Your task to perform on an android device: Do I have any events today? Image 0: 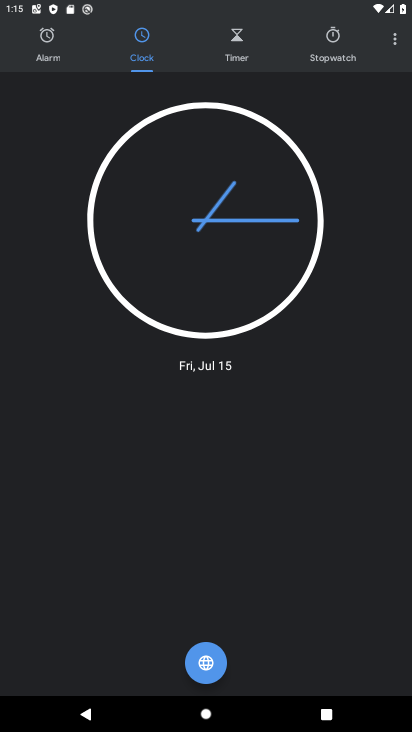
Step 0: press home button
Your task to perform on an android device: Do I have any events today? Image 1: 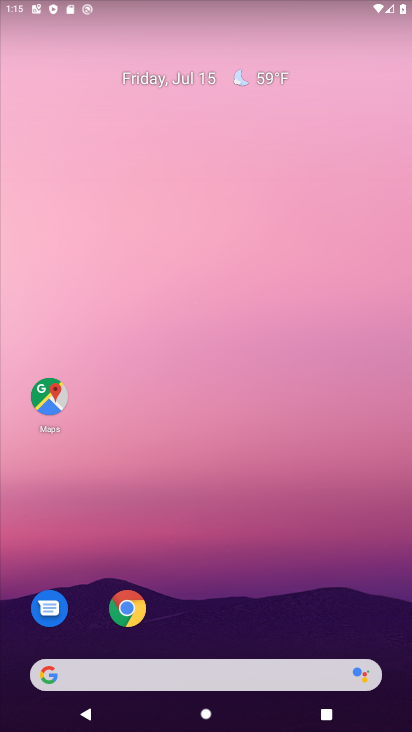
Step 1: drag from (182, 672) to (211, 143)
Your task to perform on an android device: Do I have any events today? Image 2: 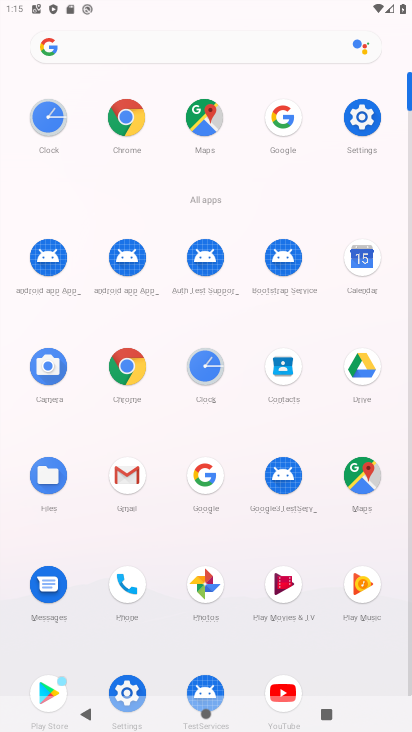
Step 2: click (358, 259)
Your task to perform on an android device: Do I have any events today? Image 3: 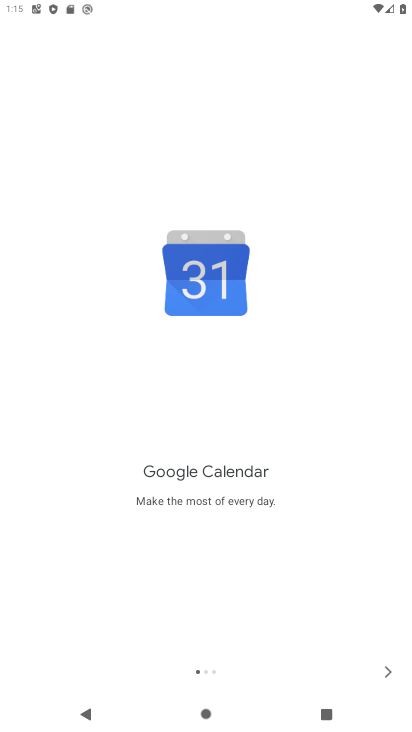
Step 3: click (382, 677)
Your task to perform on an android device: Do I have any events today? Image 4: 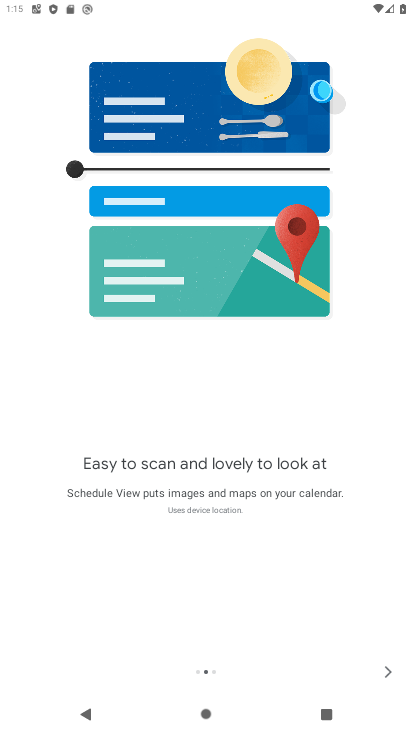
Step 4: click (382, 672)
Your task to perform on an android device: Do I have any events today? Image 5: 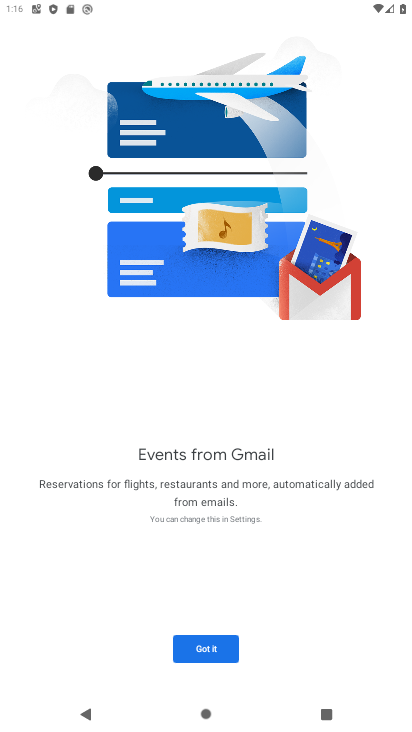
Step 5: click (197, 649)
Your task to perform on an android device: Do I have any events today? Image 6: 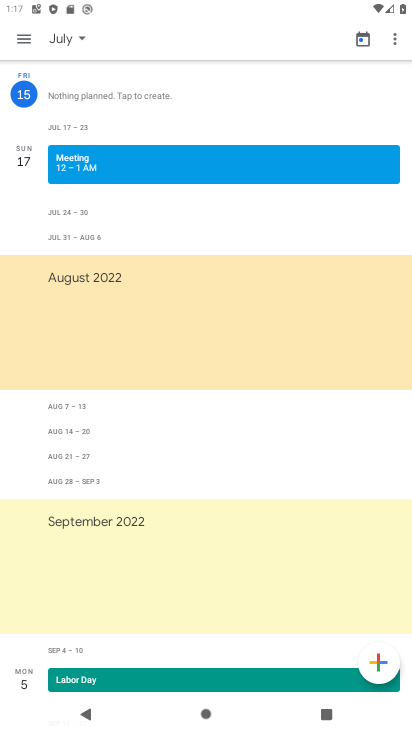
Step 6: click (28, 83)
Your task to perform on an android device: Do I have any events today? Image 7: 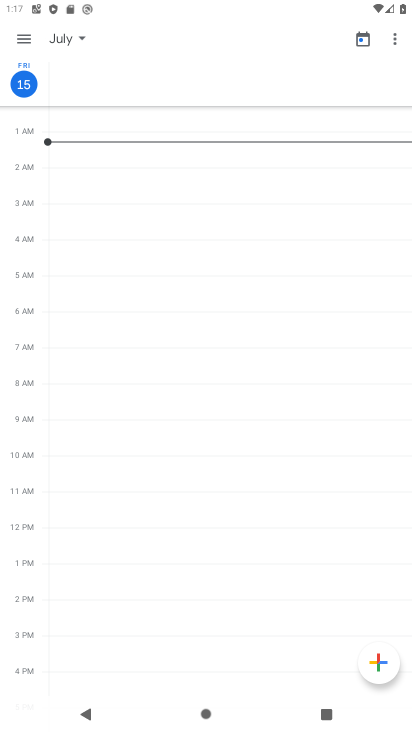
Step 7: task complete